Your task to perform on an android device: change timer sound Image 0: 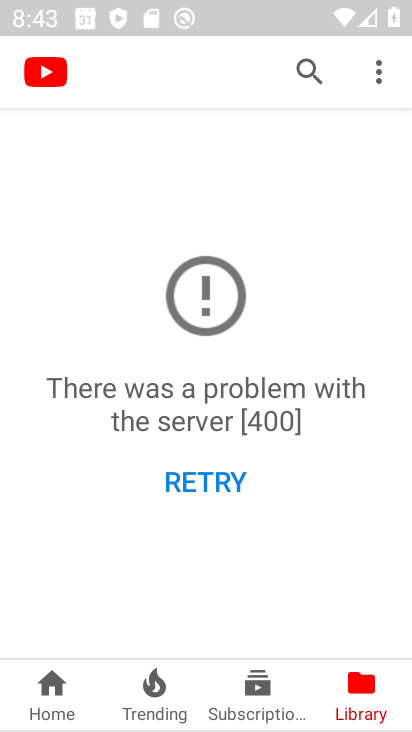
Step 0: press back button
Your task to perform on an android device: change timer sound Image 1: 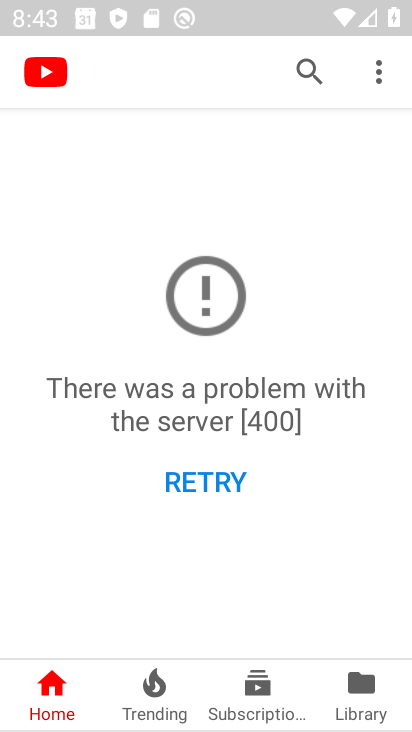
Step 1: press back button
Your task to perform on an android device: change timer sound Image 2: 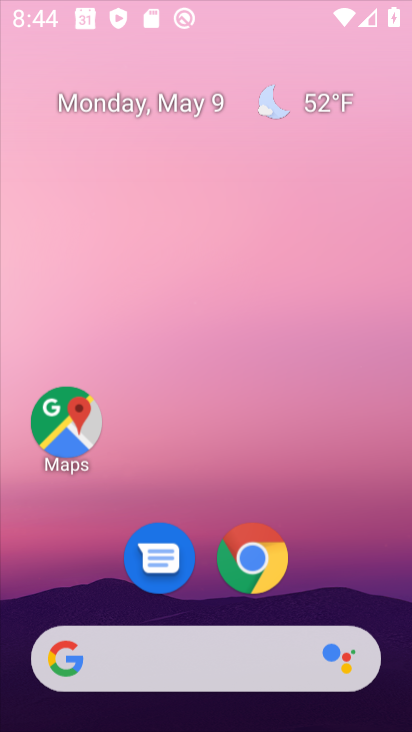
Step 2: press home button
Your task to perform on an android device: change timer sound Image 3: 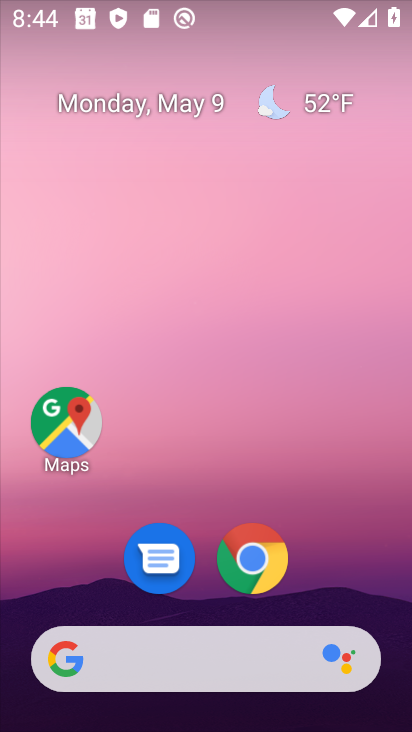
Step 3: drag from (218, 574) to (334, 7)
Your task to perform on an android device: change timer sound Image 4: 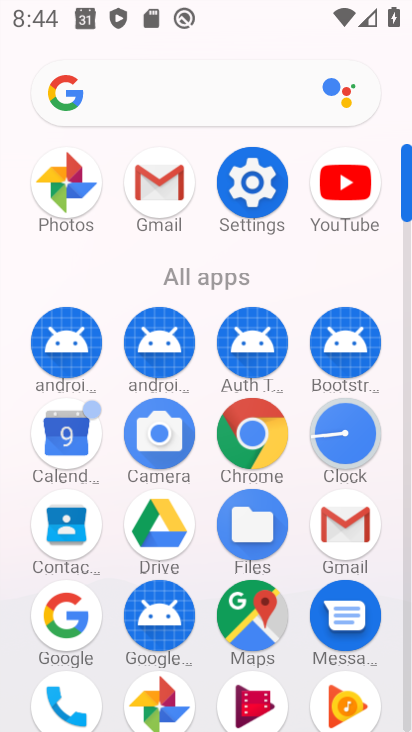
Step 4: click (346, 433)
Your task to perform on an android device: change timer sound Image 5: 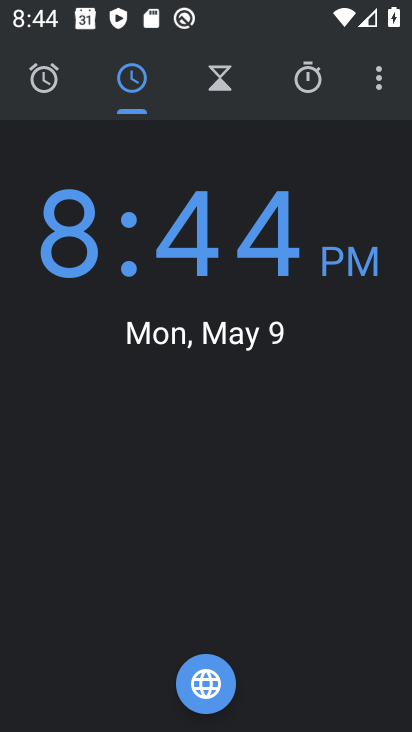
Step 5: click (375, 73)
Your task to perform on an android device: change timer sound Image 6: 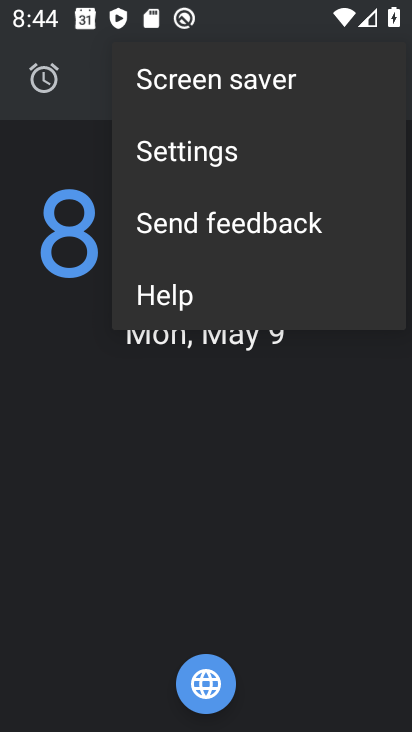
Step 6: click (189, 156)
Your task to perform on an android device: change timer sound Image 7: 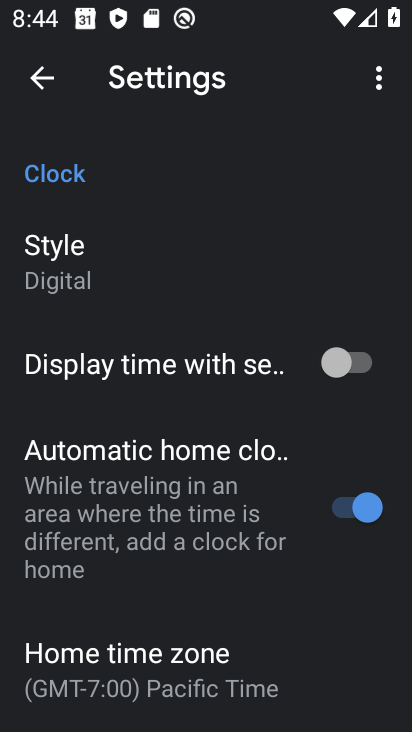
Step 7: drag from (131, 705) to (252, 117)
Your task to perform on an android device: change timer sound Image 8: 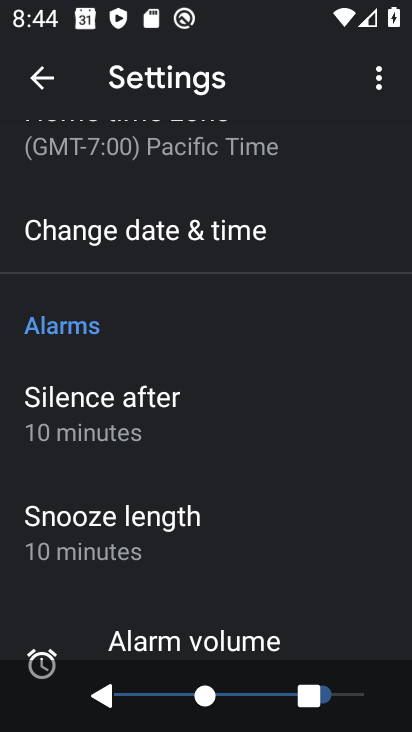
Step 8: drag from (161, 528) to (221, 73)
Your task to perform on an android device: change timer sound Image 9: 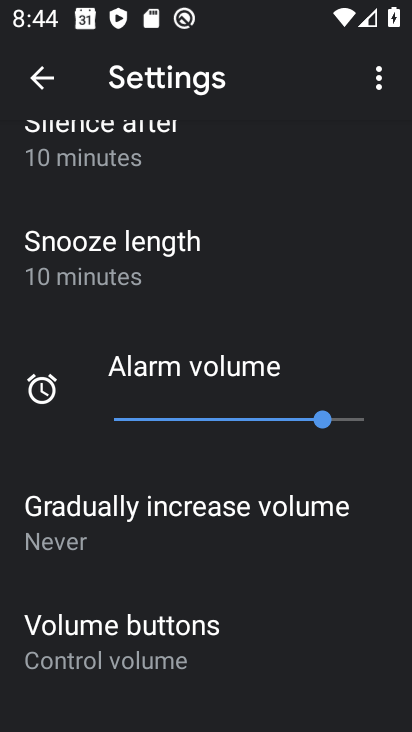
Step 9: drag from (134, 641) to (235, 183)
Your task to perform on an android device: change timer sound Image 10: 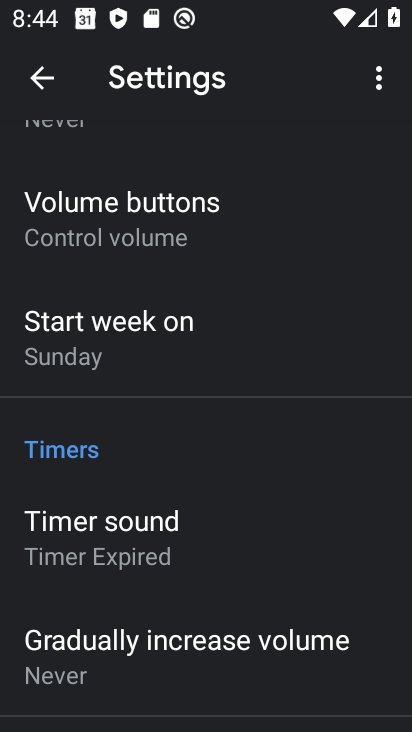
Step 10: click (101, 544)
Your task to perform on an android device: change timer sound Image 11: 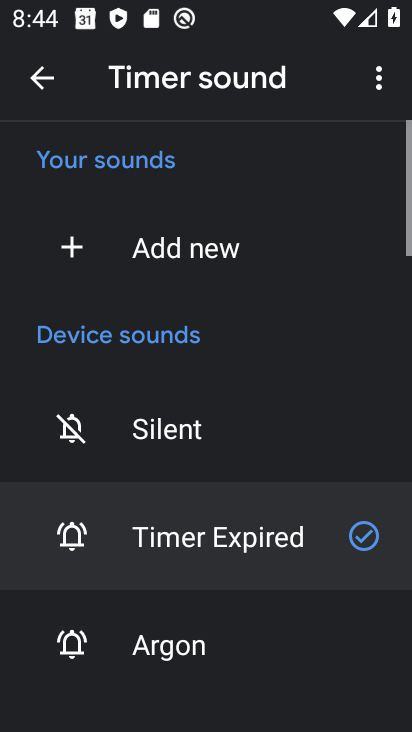
Step 11: click (161, 642)
Your task to perform on an android device: change timer sound Image 12: 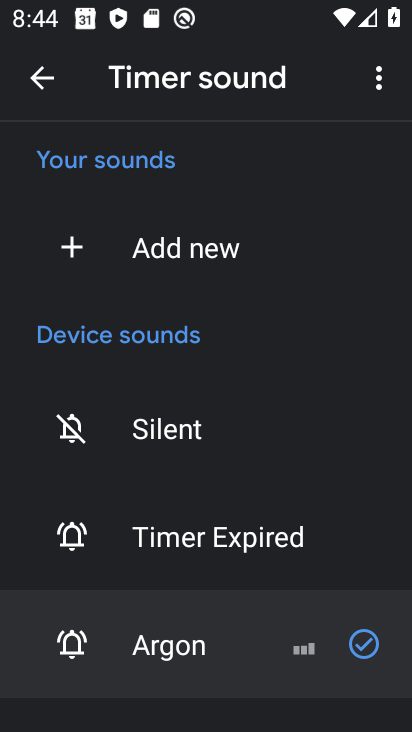
Step 12: task complete